Your task to perform on an android device: Search for pizza restaurants on Maps Image 0: 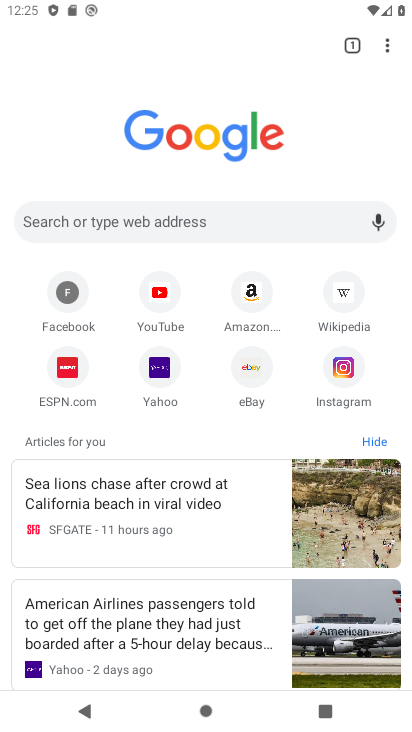
Step 0: press home button
Your task to perform on an android device: Search for pizza restaurants on Maps Image 1: 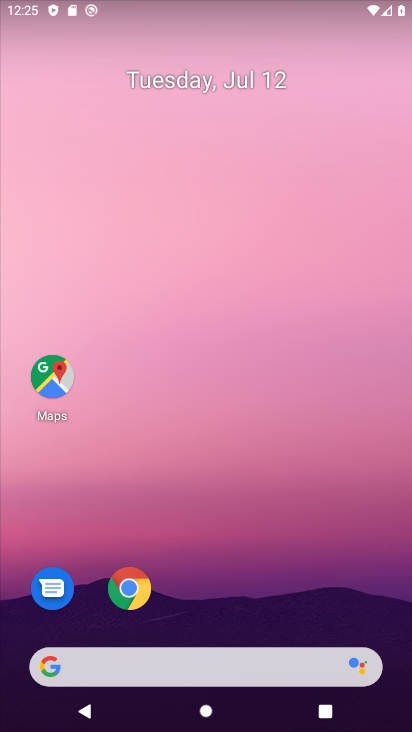
Step 1: click (58, 388)
Your task to perform on an android device: Search for pizza restaurants on Maps Image 2: 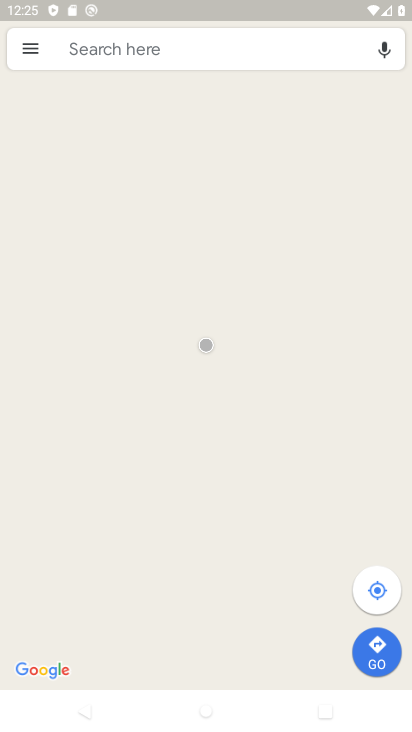
Step 2: click (111, 50)
Your task to perform on an android device: Search for pizza restaurants on Maps Image 3: 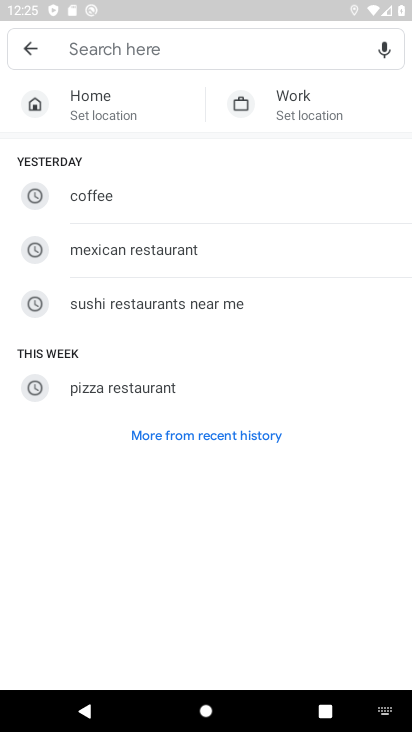
Step 3: click (99, 384)
Your task to perform on an android device: Search for pizza restaurants on Maps Image 4: 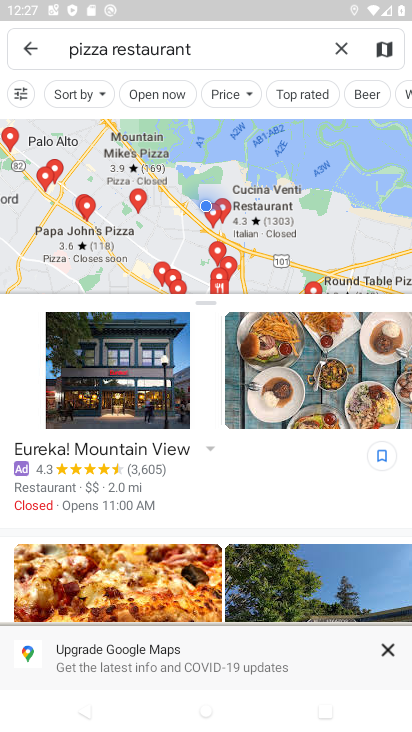
Step 4: task complete